Your task to perform on an android device: see creations saved in the google photos Image 0: 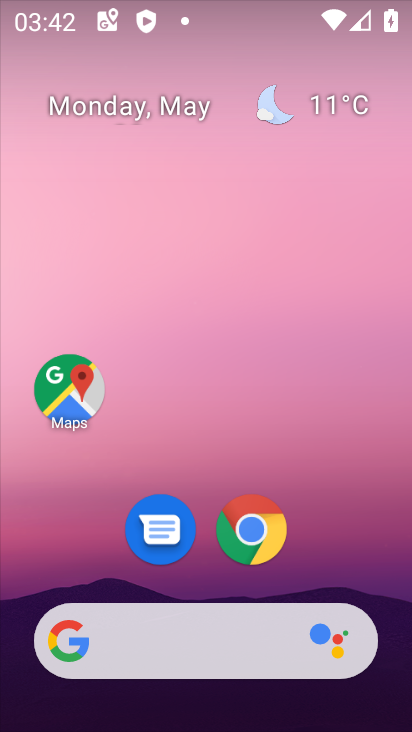
Step 0: drag from (403, 511) to (214, 81)
Your task to perform on an android device: see creations saved in the google photos Image 1: 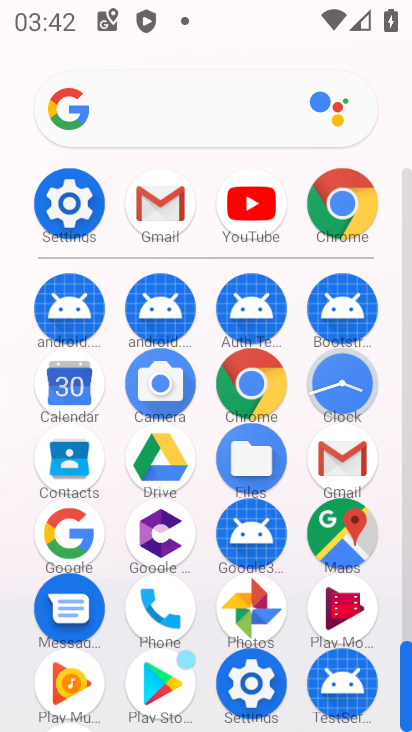
Step 1: click (257, 607)
Your task to perform on an android device: see creations saved in the google photos Image 2: 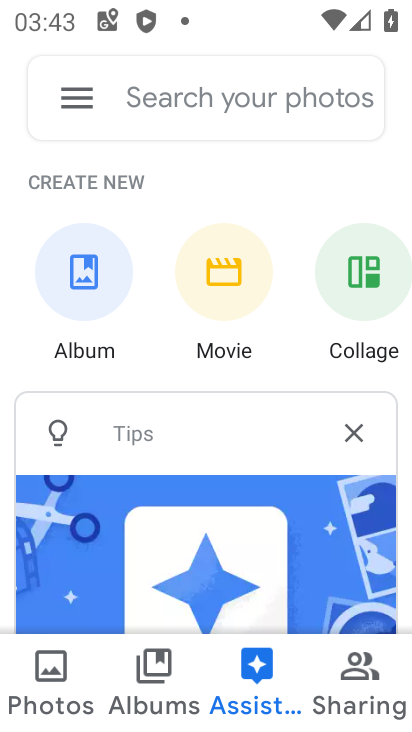
Step 2: task complete